Your task to perform on an android device: open a new tab in the chrome app Image 0: 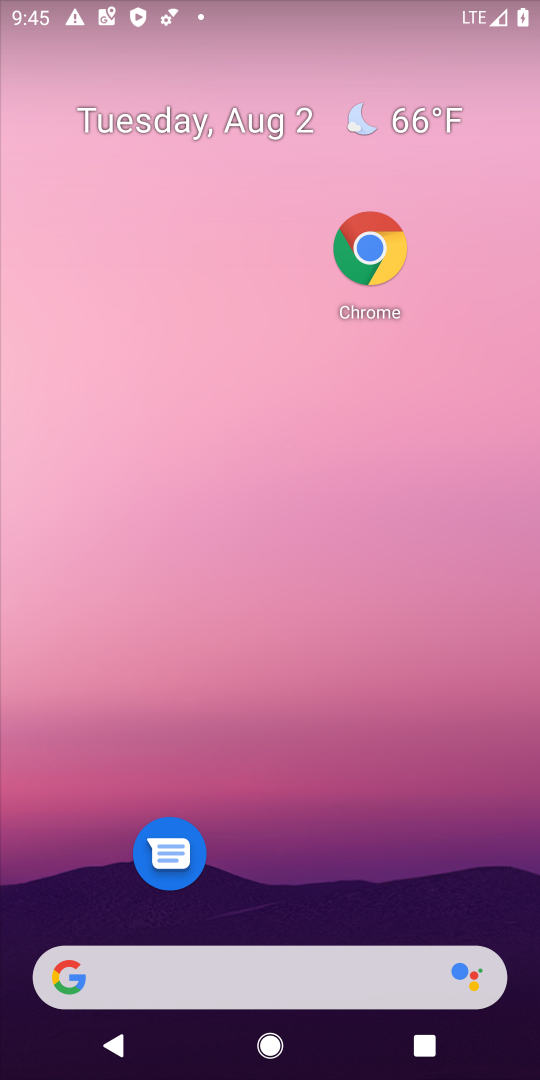
Step 0: drag from (258, 930) to (271, 133)
Your task to perform on an android device: open a new tab in the chrome app Image 1: 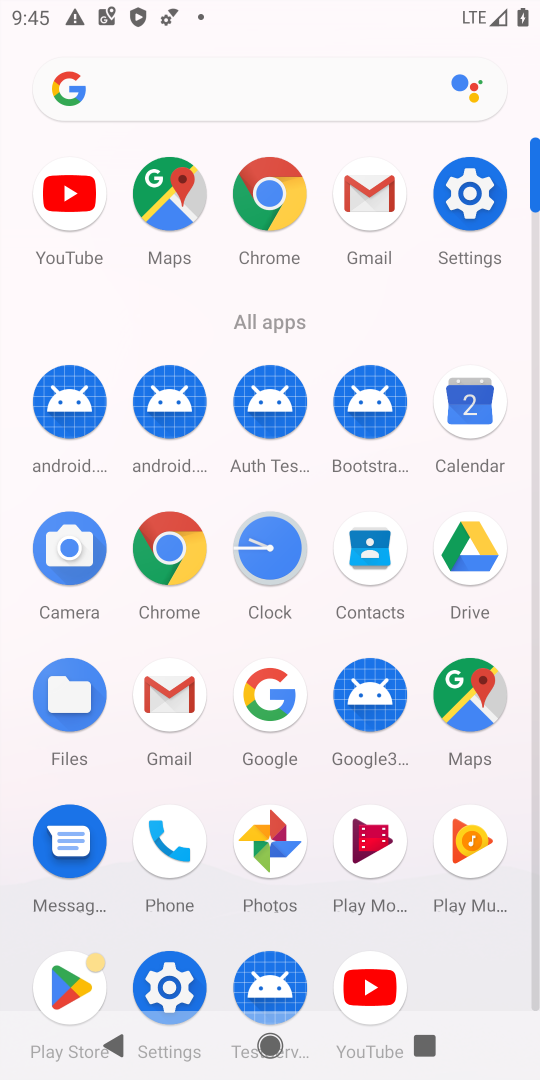
Step 1: click (254, 193)
Your task to perform on an android device: open a new tab in the chrome app Image 2: 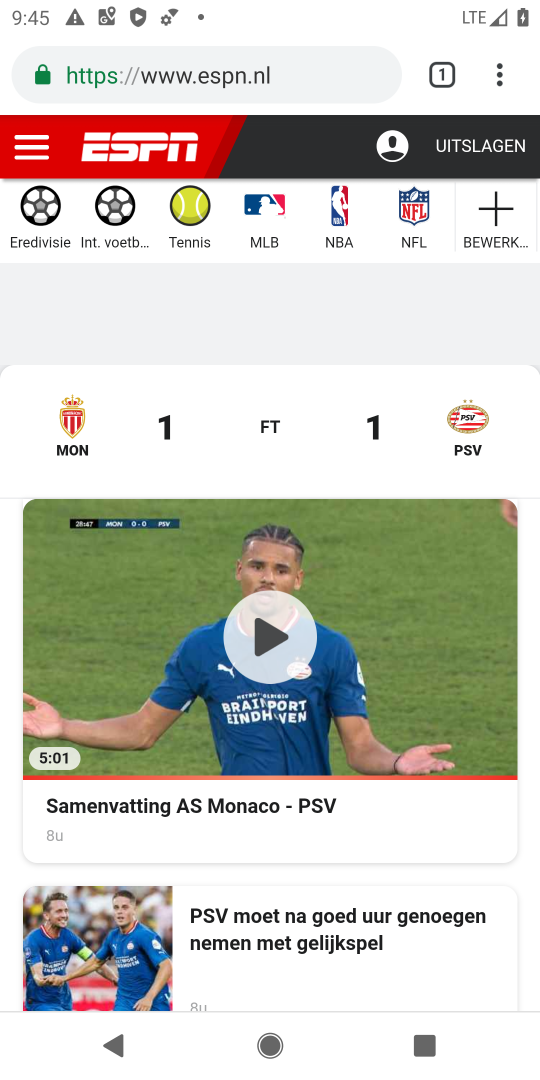
Step 2: click (448, 66)
Your task to perform on an android device: open a new tab in the chrome app Image 3: 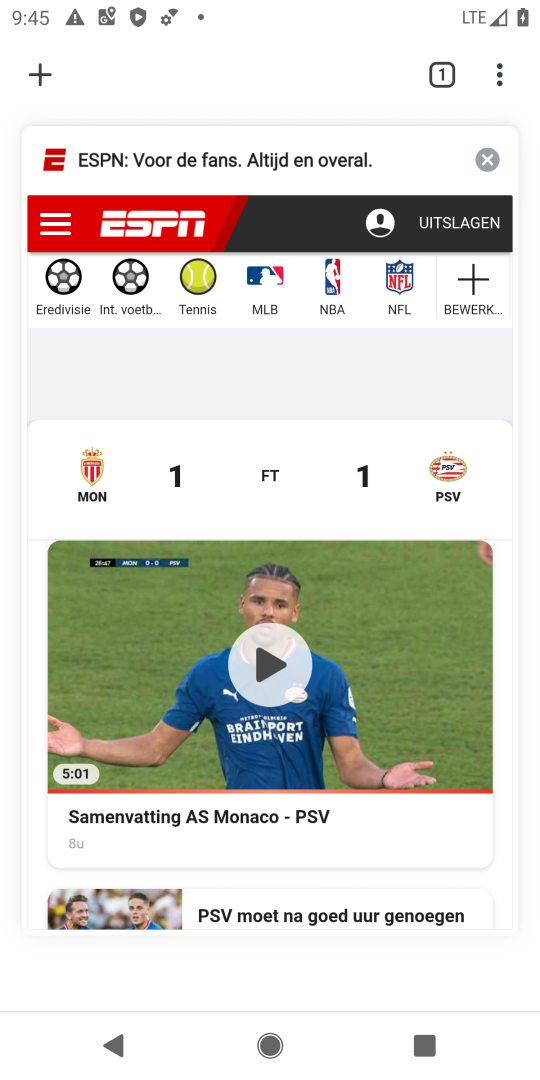
Step 3: click (46, 64)
Your task to perform on an android device: open a new tab in the chrome app Image 4: 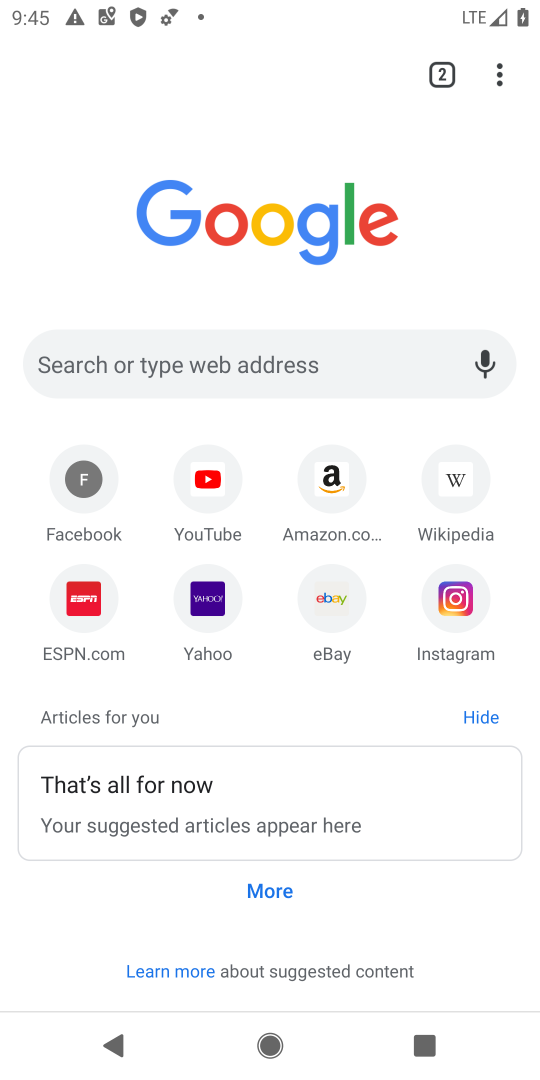
Step 4: task complete